Your task to perform on an android device: What's the weather going to be this weekend? Image 0: 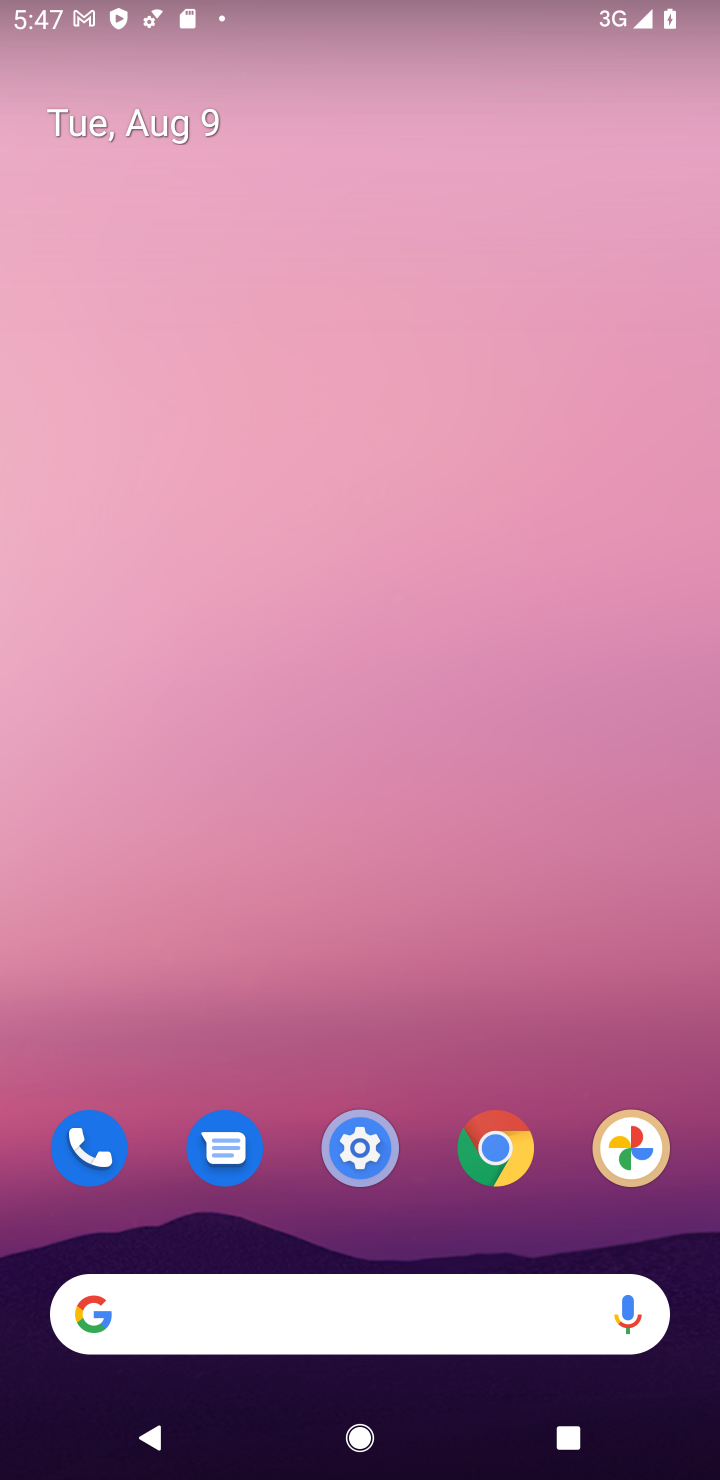
Step 0: click (308, 1309)
Your task to perform on an android device: What's the weather going to be this weekend? Image 1: 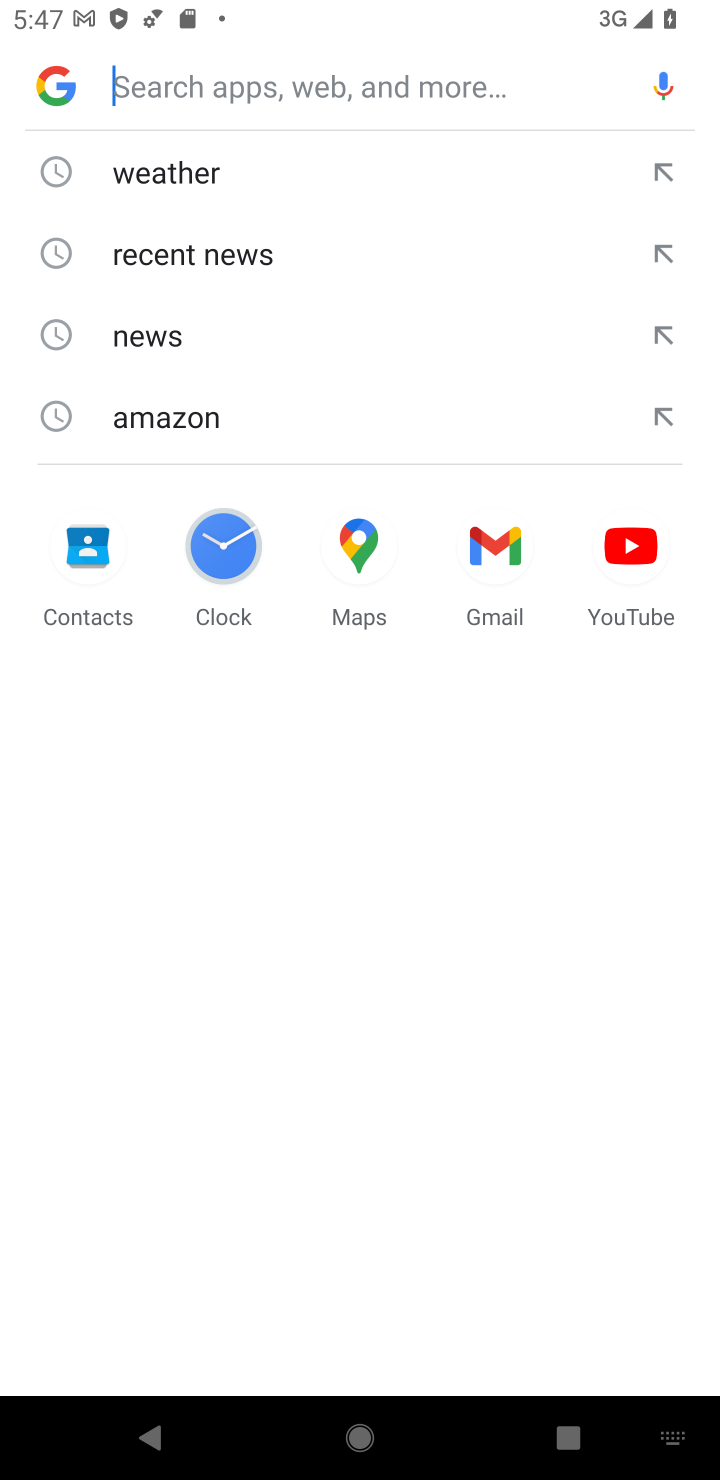
Step 1: click (152, 170)
Your task to perform on an android device: What's the weather going to be this weekend? Image 2: 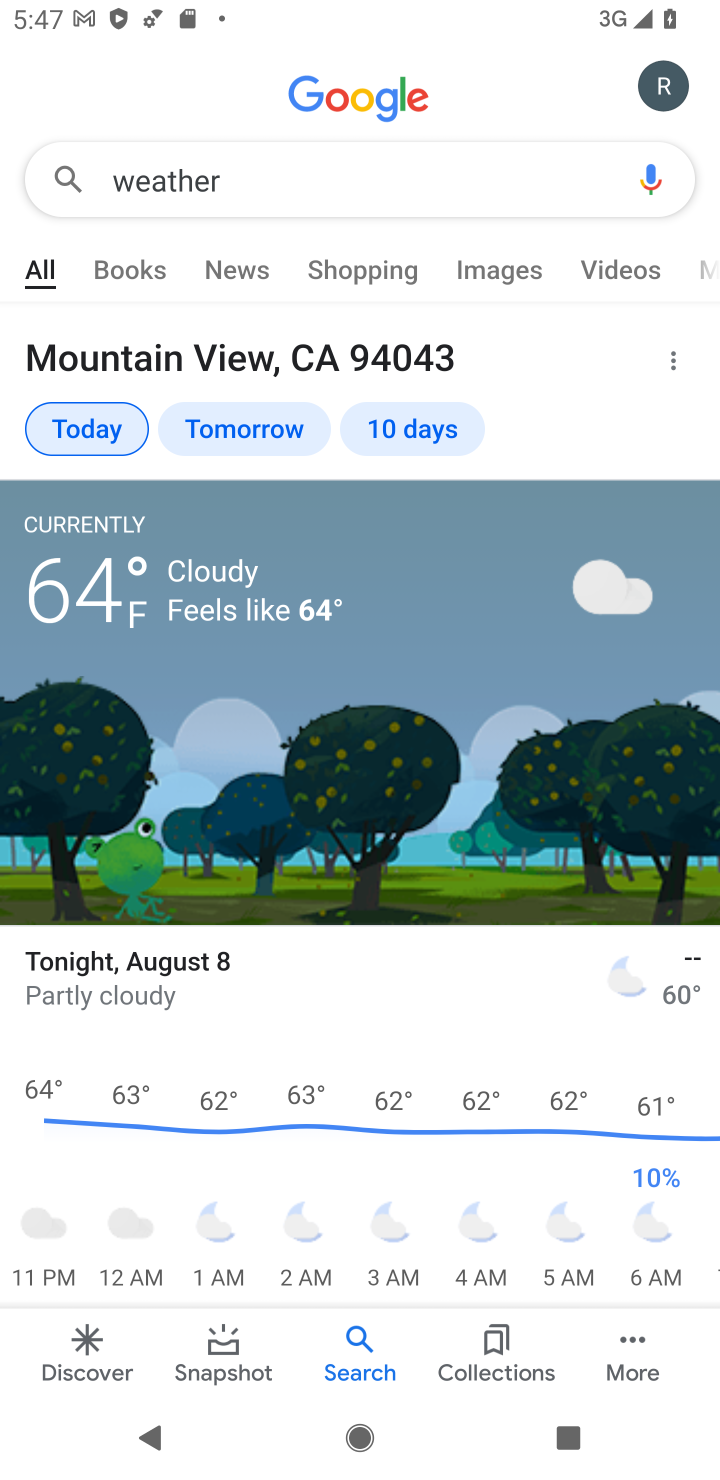
Step 2: click (420, 442)
Your task to perform on an android device: What's the weather going to be this weekend? Image 3: 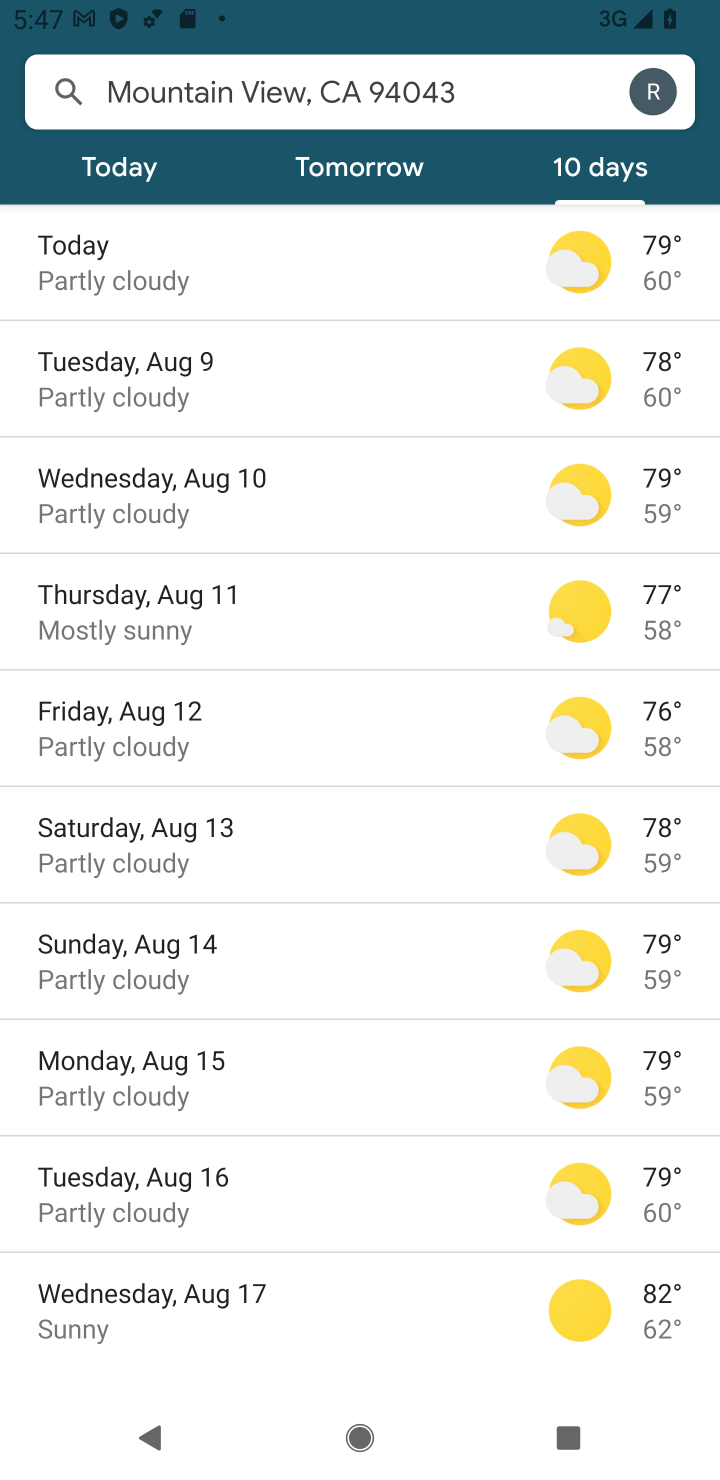
Step 3: task complete